Your task to perform on an android device: all mails in gmail Image 0: 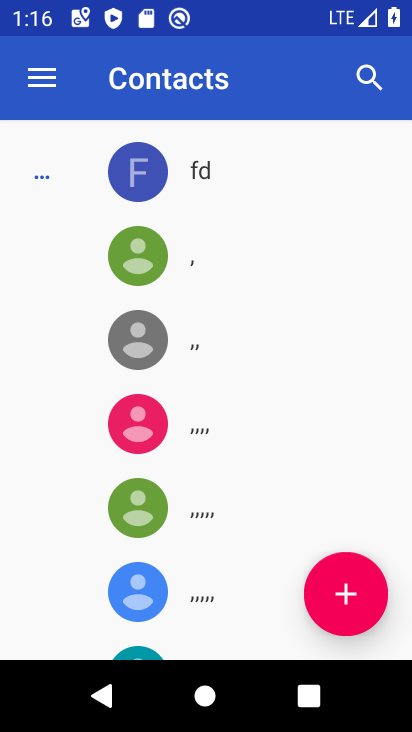
Step 0: press home button
Your task to perform on an android device: all mails in gmail Image 1: 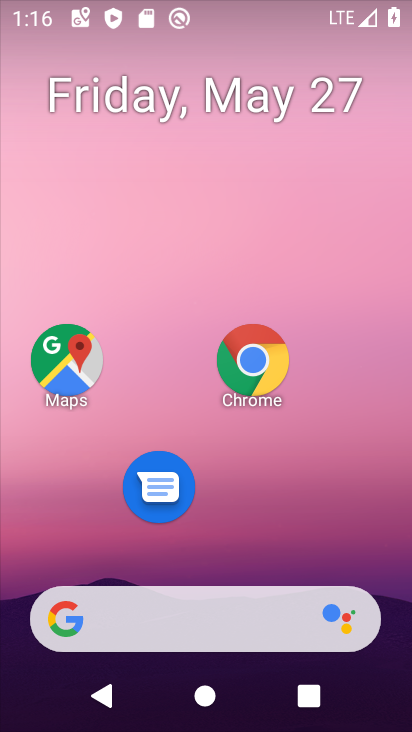
Step 1: drag from (239, 531) to (282, 62)
Your task to perform on an android device: all mails in gmail Image 2: 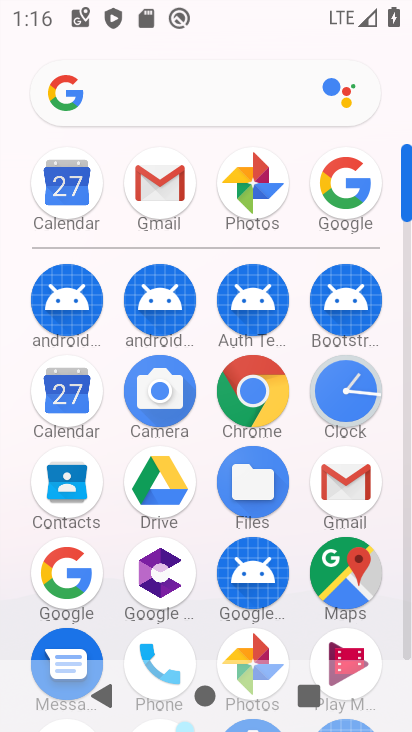
Step 2: click (162, 177)
Your task to perform on an android device: all mails in gmail Image 3: 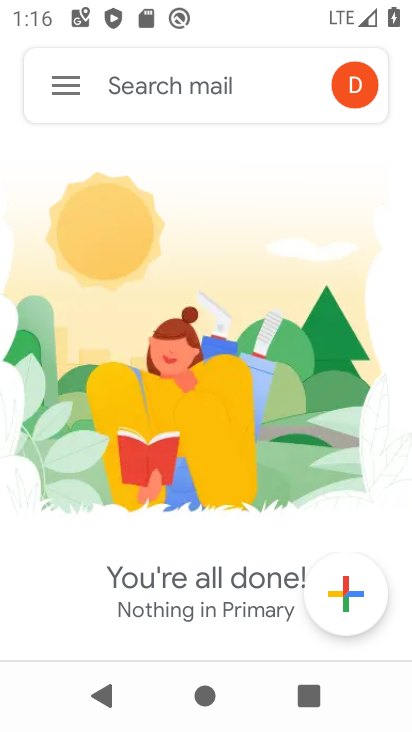
Step 3: click (55, 75)
Your task to perform on an android device: all mails in gmail Image 4: 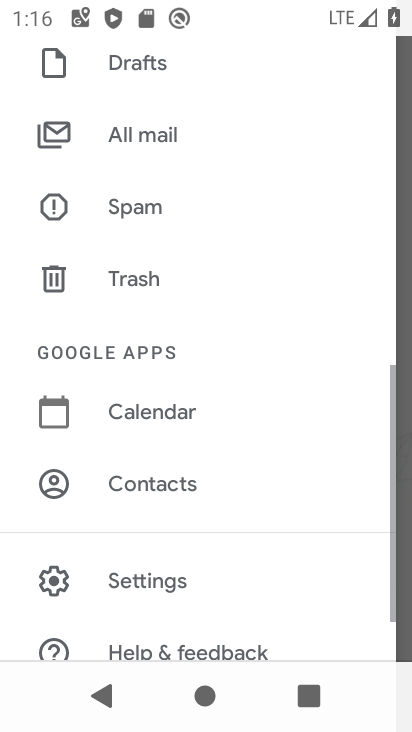
Step 4: click (128, 136)
Your task to perform on an android device: all mails in gmail Image 5: 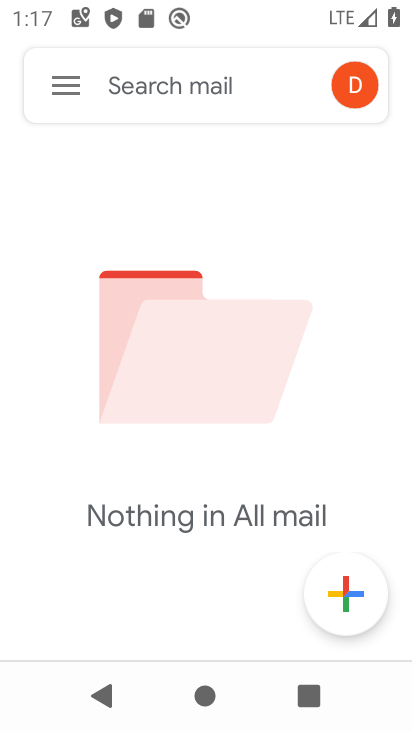
Step 5: task complete